Your task to perform on an android device: Empty the shopping cart on bestbuy. Search for "razer blade" on bestbuy, select the first entry, and add it to the cart. Image 0: 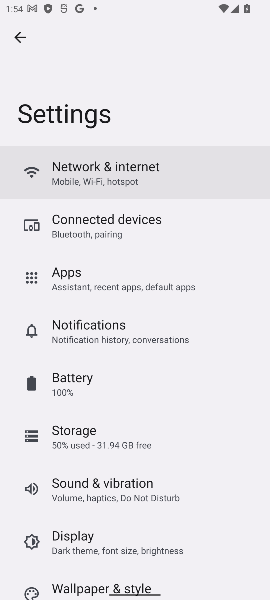
Step 0: press home button
Your task to perform on an android device: Empty the shopping cart on bestbuy. Search for "razer blade" on bestbuy, select the first entry, and add it to the cart. Image 1: 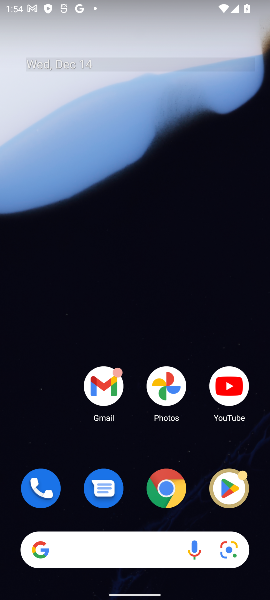
Step 1: drag from (94, 528) to (124, 68)
Your task to perform on an android device: Empty the shopping cart on bestbuy. Search for "razer blade" on bestbuy, select the first entry, and add it to the cart. Image 2: 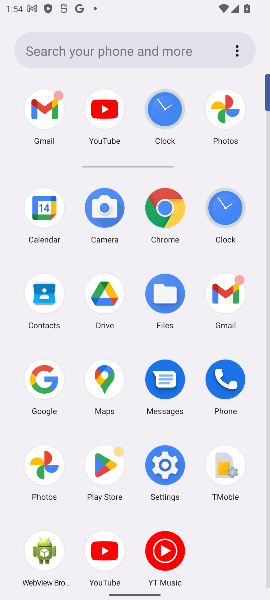
Step 2: click (47, 384)
Your task to perform on an android device: Empty the shopping cart on bestbuy. Search for "razer blade" on bestbuy, select the first entry, and add it to the cart. Image 3: 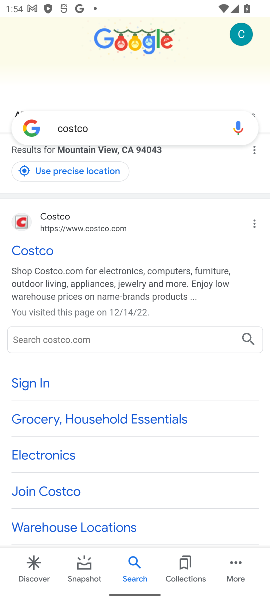
Step 3: click (84, 127)
Your task to perform on an android device: Empty the shopping cart on bestbuy. Search for "razer blade" on bestbuy, select the first entry, and add it to the cart. Image 4: 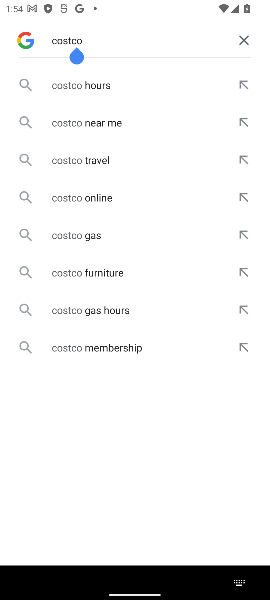
Step 4: click (247, 36)
Your task to perform on an android device: Empty the shopping cart on bestbuy. Search for "razer blade" on bestbuy, select the first entry, and add it to the cart. Image 5: 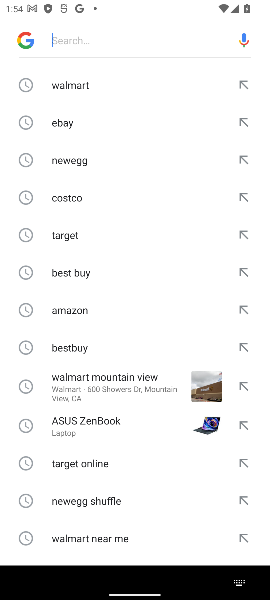
Step 5: click (71, 274)
Your task to perform on an android device: Empty the shopping cart on bestbuy. Search for "razer blade" on bestbuy, select the first entry, and add it to the cart. Image 6: 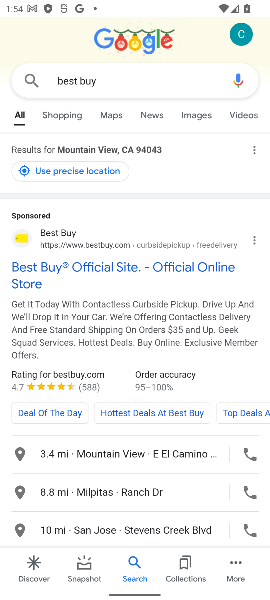
Step 6: click (71, 270)
Your task to perform on an android device: Empty the shopping cart on bestbuy. Search for "razer blade" on bestbuy, select the first entry, and add it to the cart. Image 7: 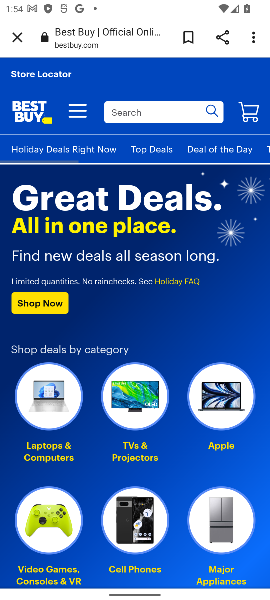
Step 7: click (142, 115)
Your task to perform on an android device: Empty the shopping cart on bestbuy. Search for "razer blade" on bestbuy, select the first entry, and add it to the cart. Image 8: 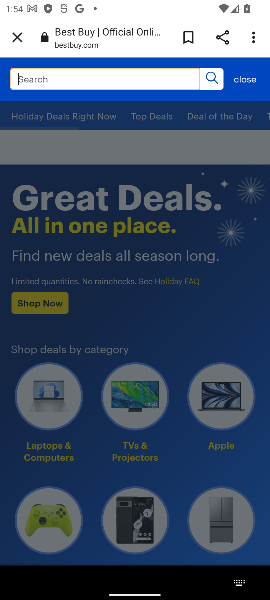
Step 8: type "razer blade"
Your task to perform on an android device: Empty the shopping cart on bestbuy. Search for "razer blade" on bestbuy, select the first entry, and add it to the cart. Image 9: 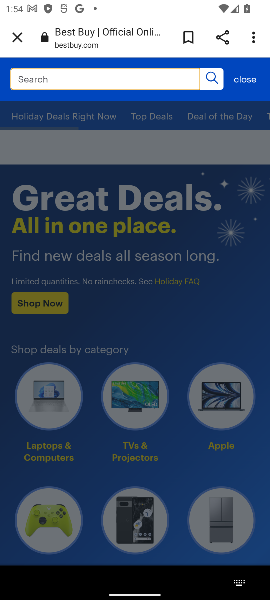
Step 9: click (213, 82)
Your task to perform on an android device: Empty the shopping cart on bestbuy. Search for "razer blade" on bestbuy, select the first entry, and add it to the cart. Image 10: 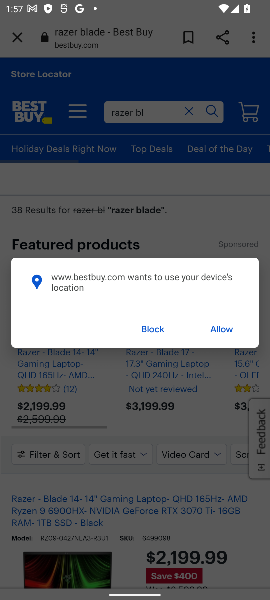
Step 10: click (219, 333)
Your task to perform on an android device: Empty the shopping cart on bestbuy. Search for "razer blade" on bestbuy, select the first entry, and add it to the cart. Image 11: 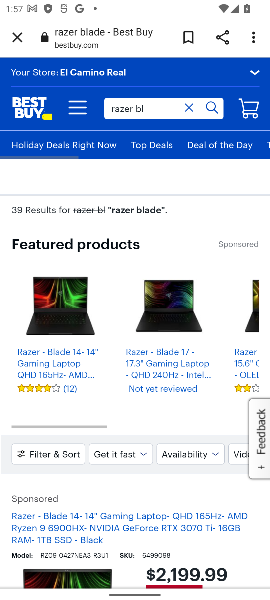
Step 11: click (216, 103)
Your task to perform on an android device: Empty the shopping cart on bestbuy. Search for "razer blade" on bestbuy, select the first entry, and add it to the cart. Image 12: 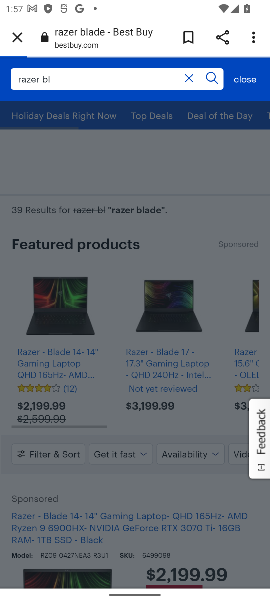
Step 12: drag from (176, 467) to (170, 202)
Your task to perform on an android device: Empty the shopping cart on bestbuy. Search for "razer blade" on bestbuy, select the first entry, and add it to the cart. Image 13: 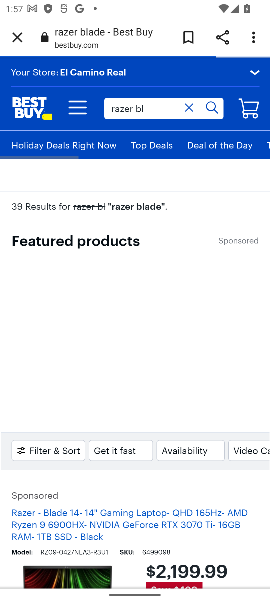
Step 13: drag from (193, 468) to (176, 253)
Your task to perform on an android device: Empty the shopping cart on bestbuy. Search for "razer blade" on bestbuy, select the first entry, and add it to the cart. Image 14: 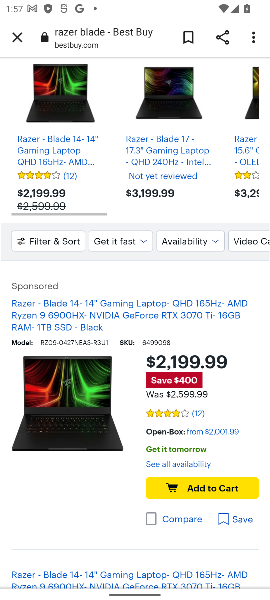
Step 14: click (207, 486)
Your task to perform on an android device: Empty the shopping cart on bestbuy. Search for "razer blade" on bestbuy, select the first entry, and add it to the cart. Image 15: 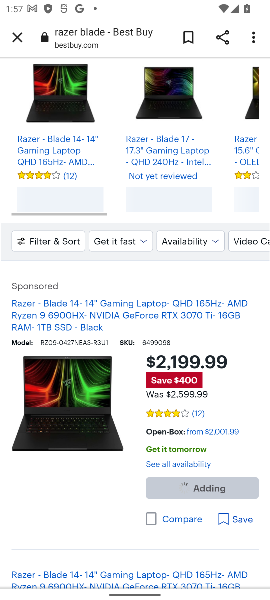
Step 15: click (212, 488)
Your task to perform on an android device: Empty the shopping cart on bestbuy. Search for "razer blade" on bestbuy, select the first entry, and add it to the cart. Image 16: 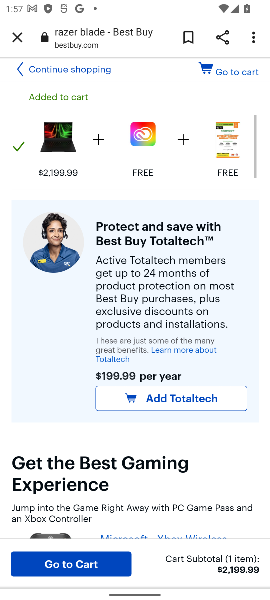
Step 16: click (90, 569)
Your task to perform on an android device: Empty the shopping cart on bestbuy. Search for "razer blade" on bestbuy, select the first entry, and add it to the cart. Image 17: 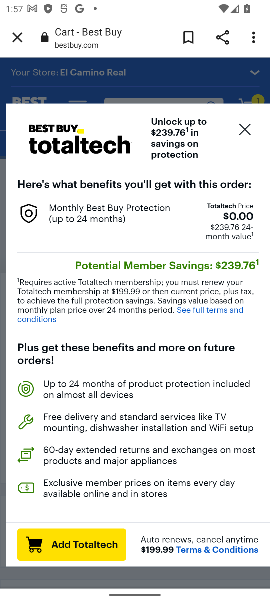
Step 17: click (114, 444)
Your task to perform on an android device: Empty the shopping cart on bestbuy. Search for "razer blade" on bestbuy, select the first entry, and add it to the cart. Image 18: 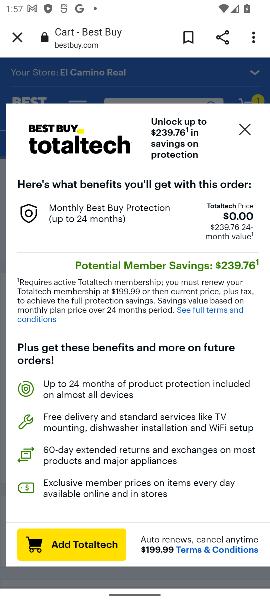
Step 18: click (245, 126)
Your task to perform on an android device: Empty the shopping cart on bestbuy. Search for "razer blade" on bestbuy, select the first entry, and add it to the cart. Image 19: 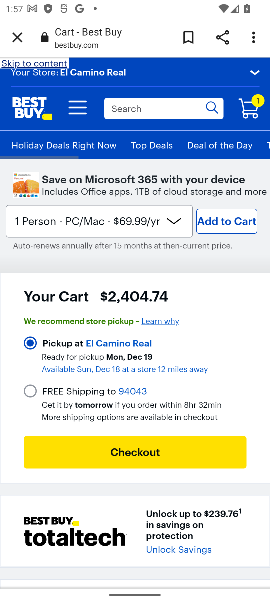
Step 19: click (153, 456)
Your task to perform on an android device: Empty the shopping cart on bestbuy. Search for "razer blade" on bestbuy, select the first entry, and add it to the cart. Image 20: 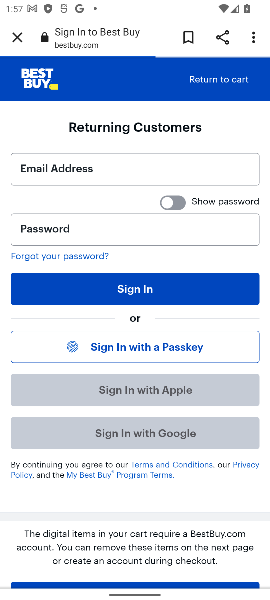
Step 20: task complete